Your task to perform on an android device: check out phone information Image 0: 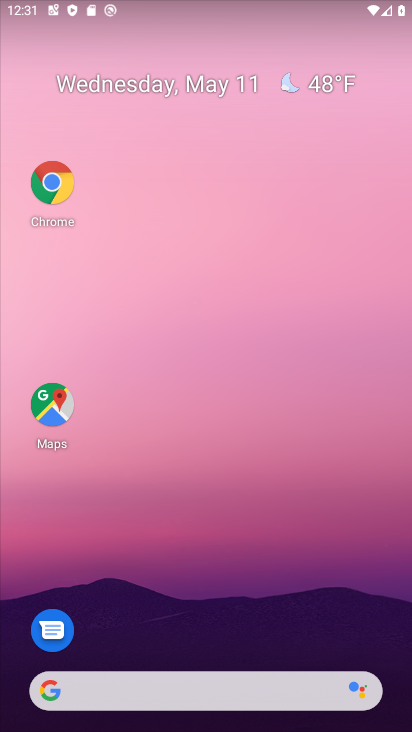
Step 0: drag from (223, 658) to (152, 19)
Your task to perform on an android device: check out phone information Image 1: 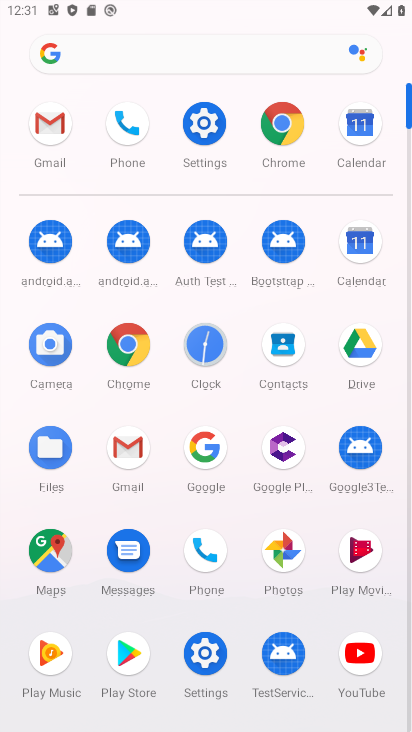
Step 1: click (214, 103)
Your task to perform on an android device: check out phone information Image 2: 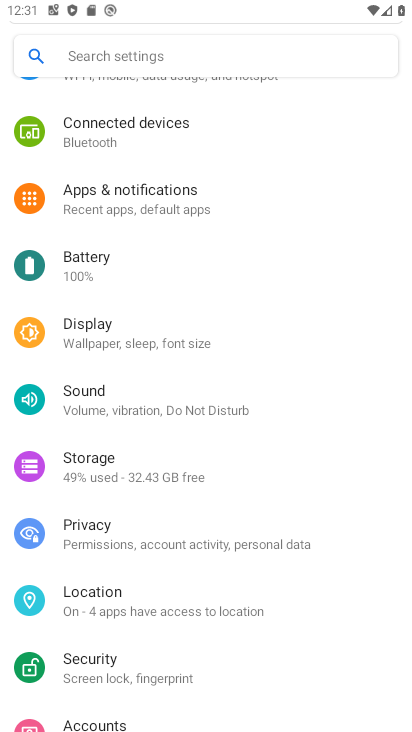
Step 2: task complete